Your task to perform on an android device: Open Chrome and go to settings Image 0: 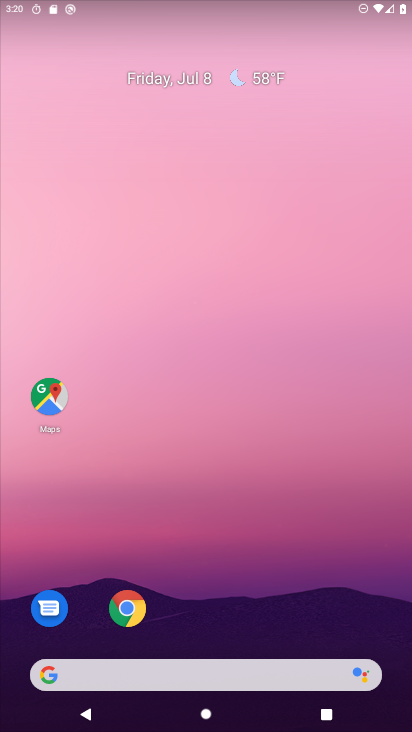
Step 0: click (130, 607)
Your task to perform on an android device: Open Chrome and go to settings Image 1: 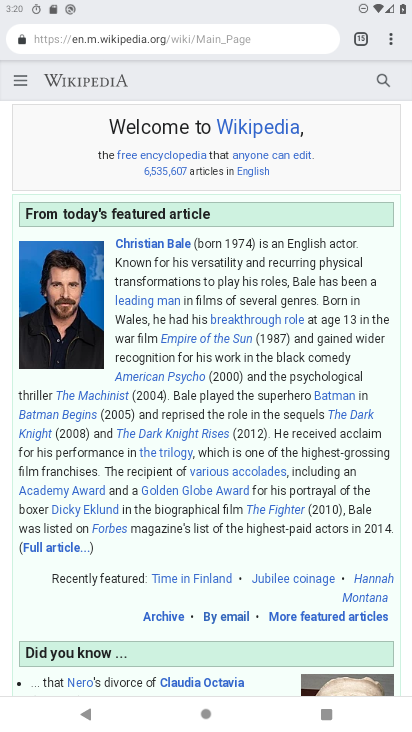
Step 1: click (391, 43)
Your task to perform on an android device: Open Chrome and go to settings Image 2: 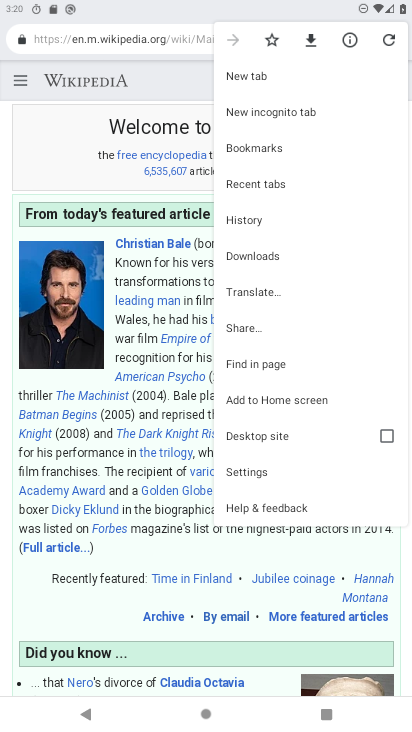
Step 2: click (247, 471)
Your task to perform on an android device: Open Chrome and go to settings Image 3: 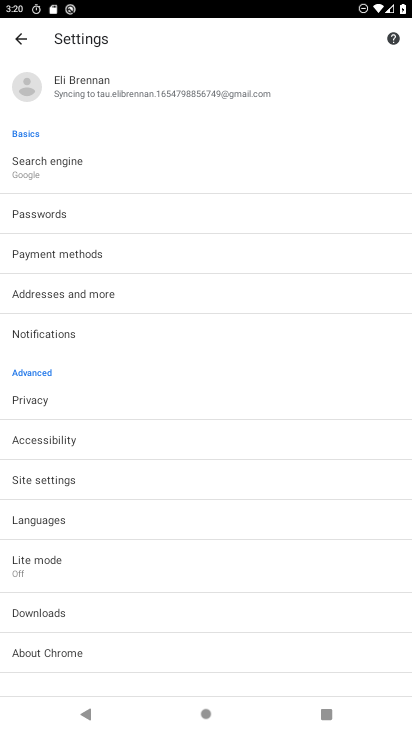
Step 3: task complete